Your task to perform on an android device: Search for razer blade on bestbuy, select the first entry, add it to the cart, then select checkout. Image 0: 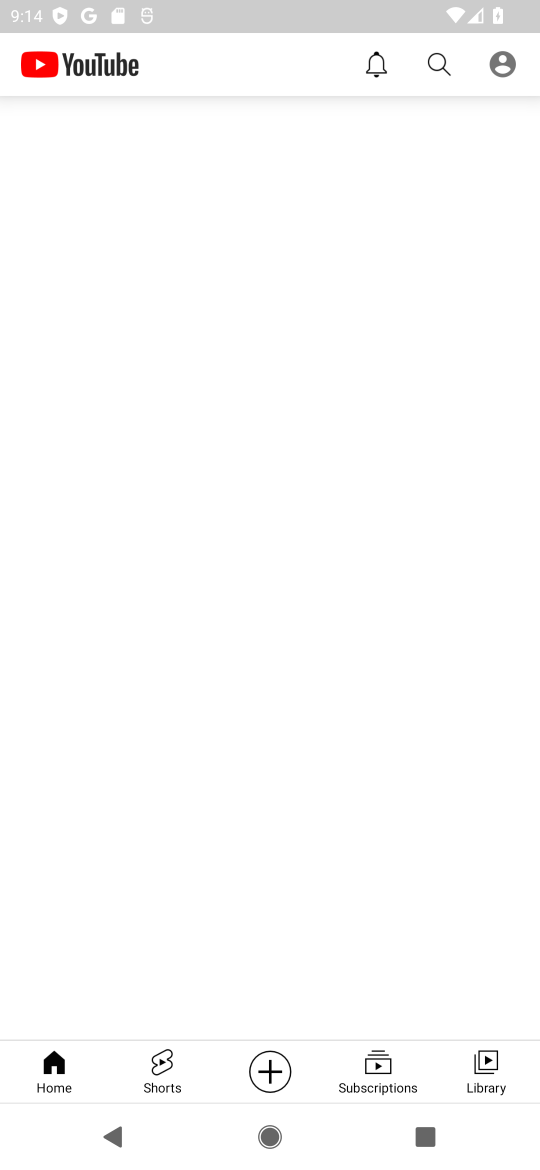
Step 0: press home button
Your task to perform on an android device: Search for razer blade on bestbuy, select the first entry, add it to the cart, then select checkout. Image 1: 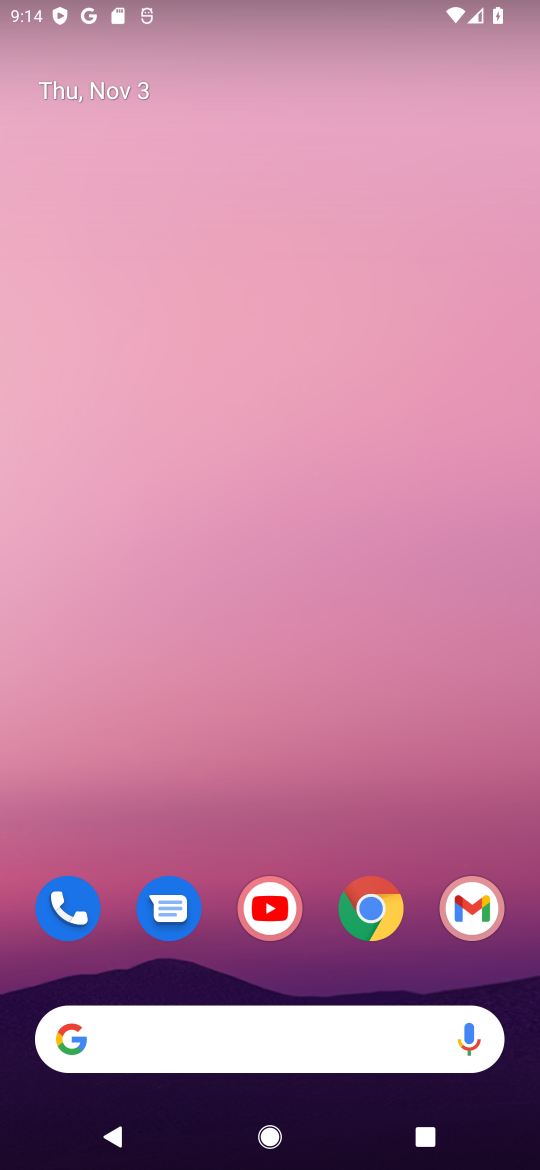
Step 1: click (378, 912)
Your task to perform on an android device: Search for razer blade on bestbuy, select the first entry, add it to the cart, then select checkout. Image 2: 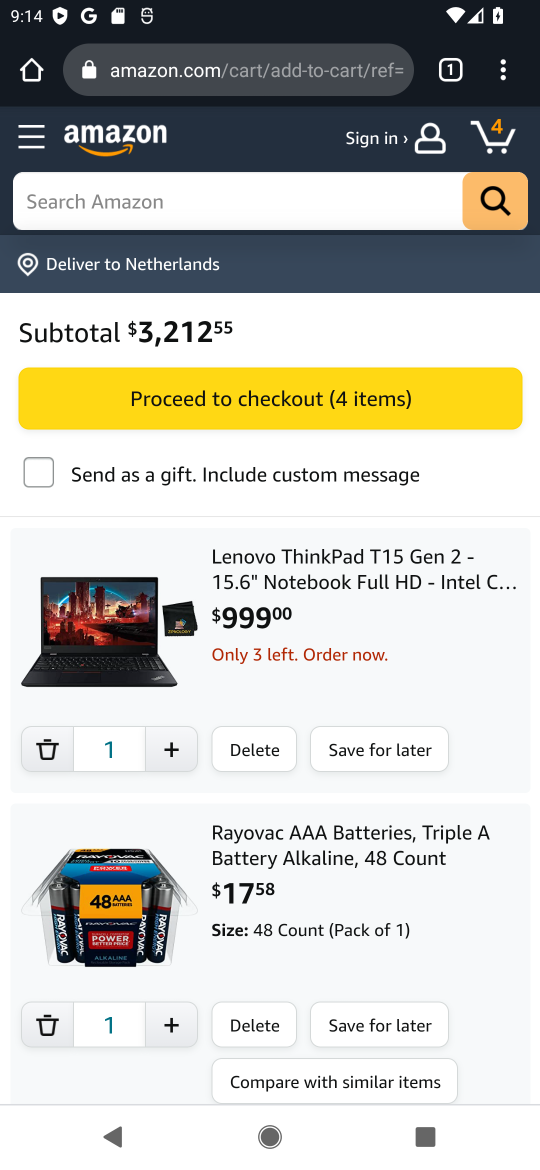
Step 2: click (281, 53)
Your task to perform on an android device: Search for razer blade on bestbuy, select the first entry, add it to the cart, then select checkout. Image 3: 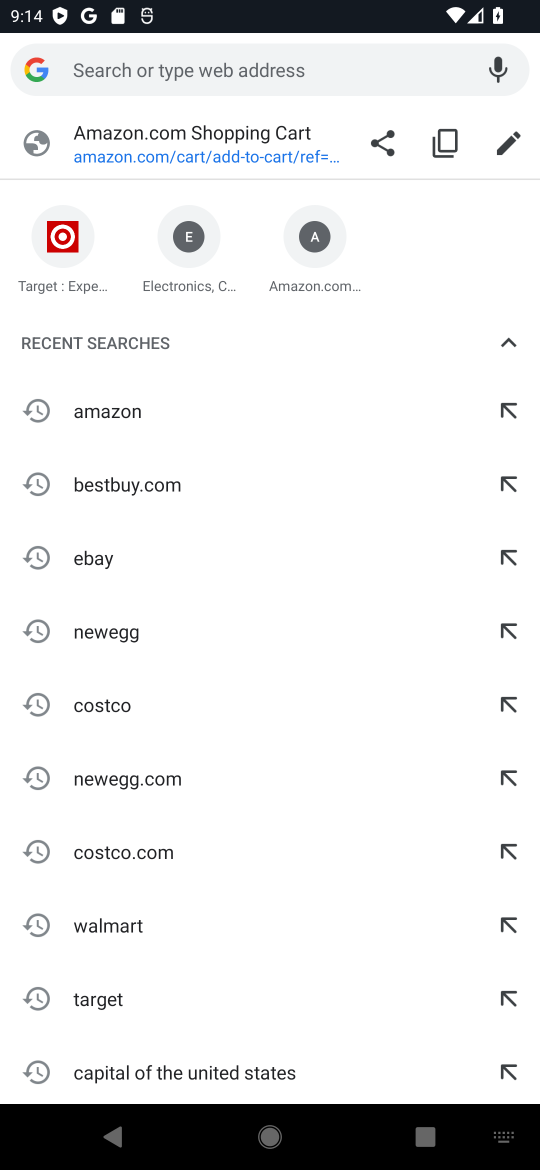
Step 3: click (148, 485)
Your task to perform on an android device: Search for razer blade on bestbuy, select the first entry, add it to the cart, then select checkout. Image 4: 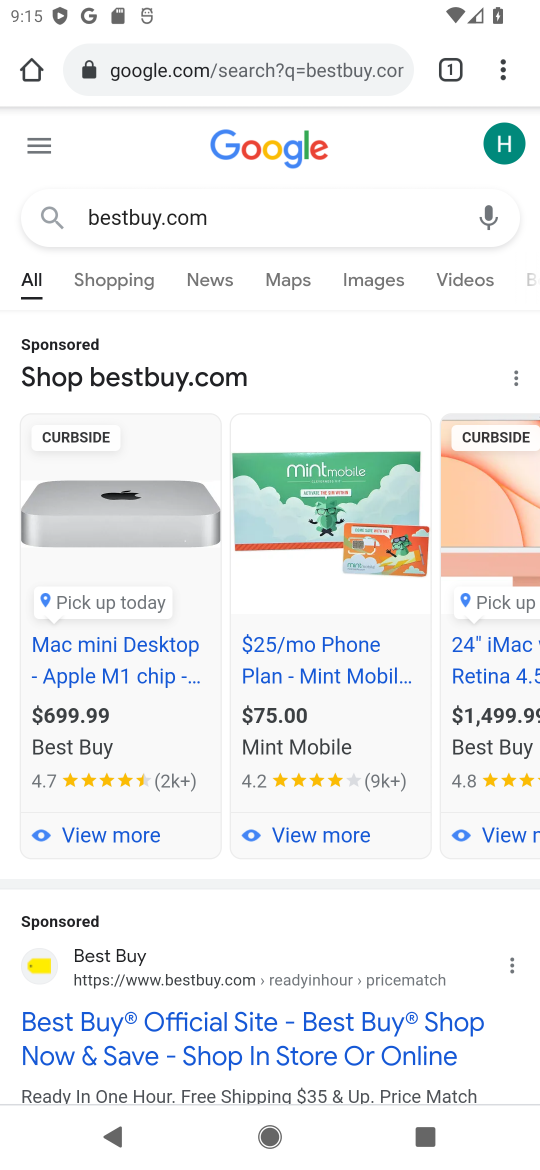
Step 4: click (135, 974)
Your task to perform on an android device: Search for razer blade on bestbuy, select the first entry, add it to the cart, then select checkout. Image 5: 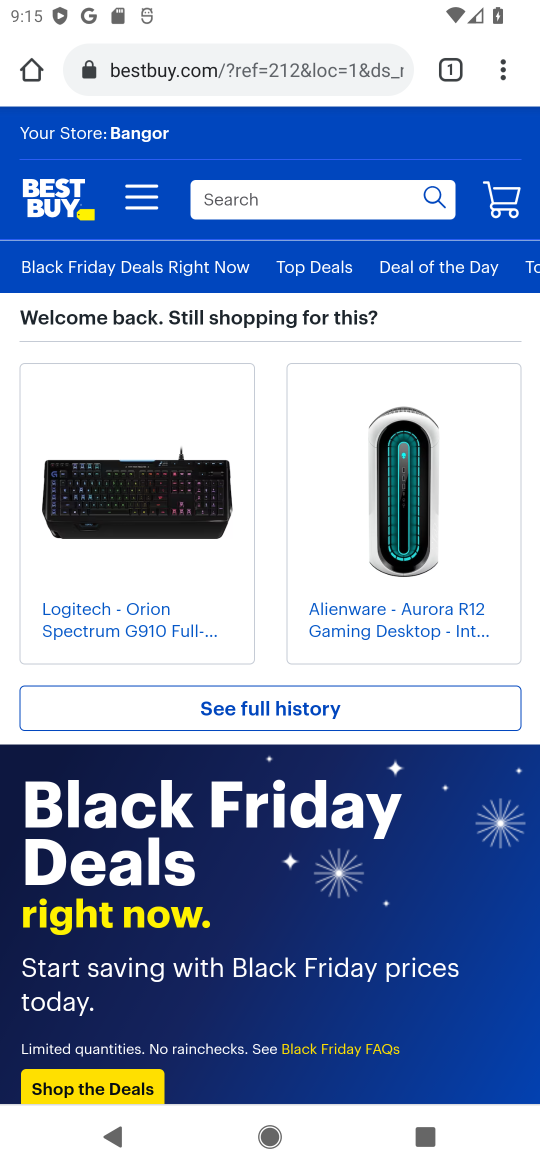
Step 5: click (324, 193)
Your task to perform on an android device: Search for razer blade on bestbuy, select the first entry, add it to the cart, then select checkout. Image 6: 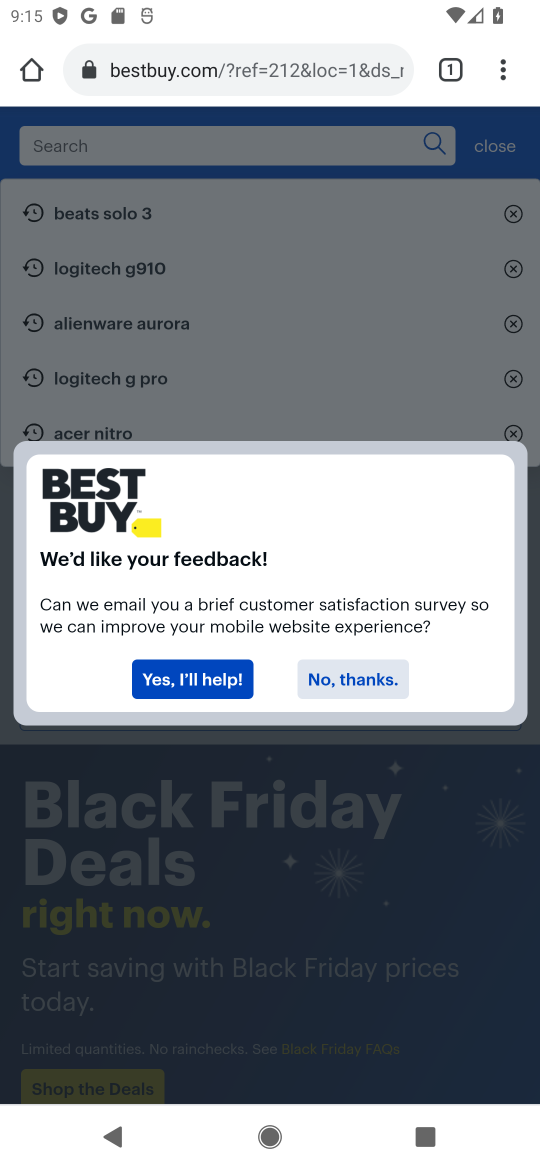
Step 6: type "razer blade"
Your task to perform on an android device: Search for razer blade on bestbuy, select the first entry, add it to the cart, then select checkout. Image 7: 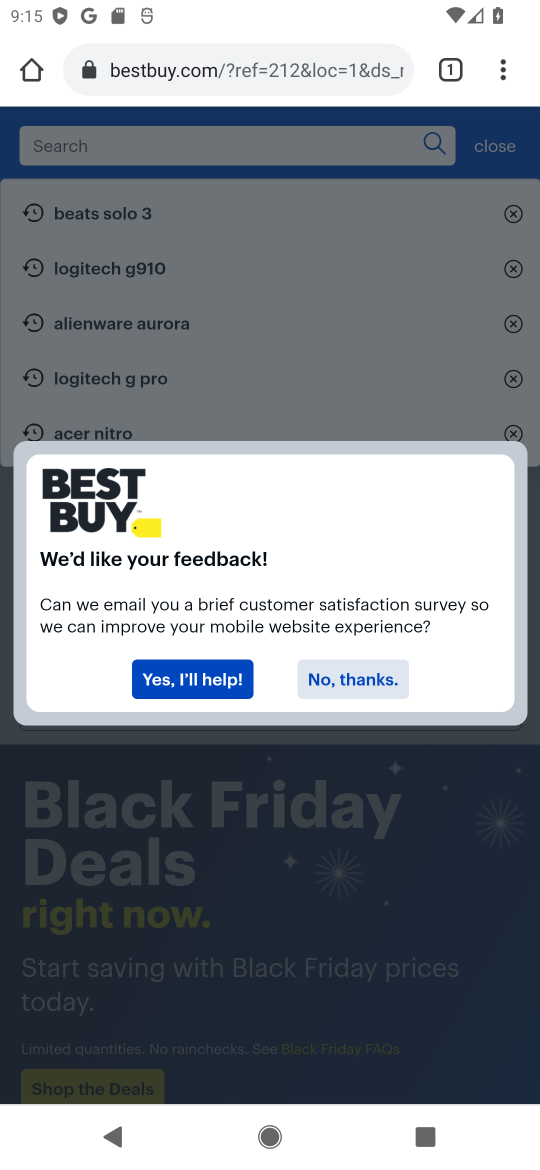
Step 7: press enter
Your task to perform on an android device: Search for razer blade on bestbuy, select the first entry, add it to the cart, then select checkout. Image 8: 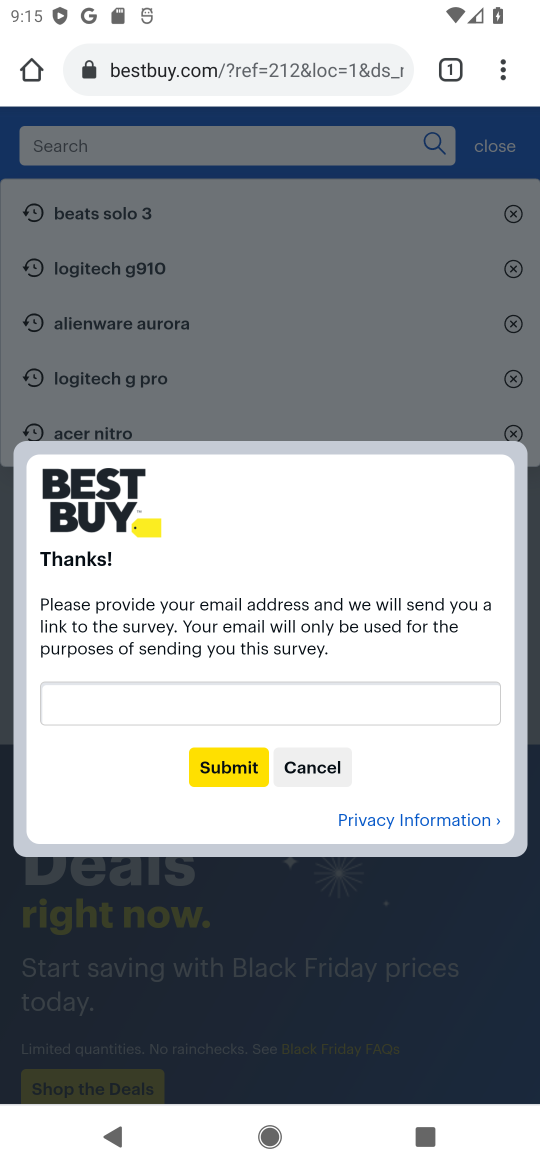
Step 8: click (315, 769)
Your task to perform on an android device: Search for razer blade on bestbuy, select the first entry, add it to the cart, then select checkout. Image 9: 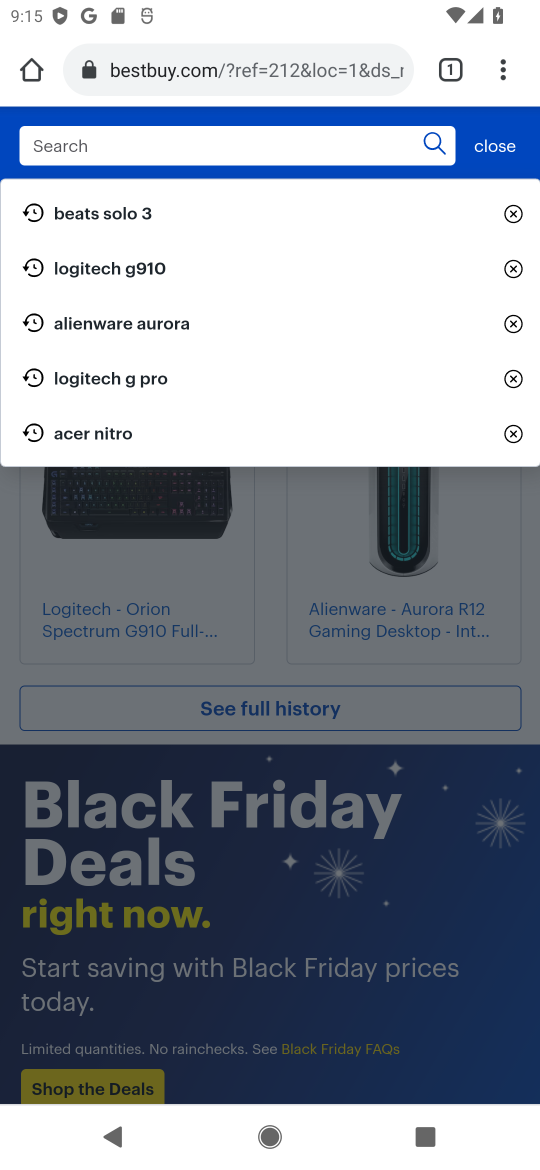
Step 9: click (232, 142)
Your task to perform on an android device: Search for razer blade on bestbuy, select the first entry, add it to the cart, then select checkout. Image 10: 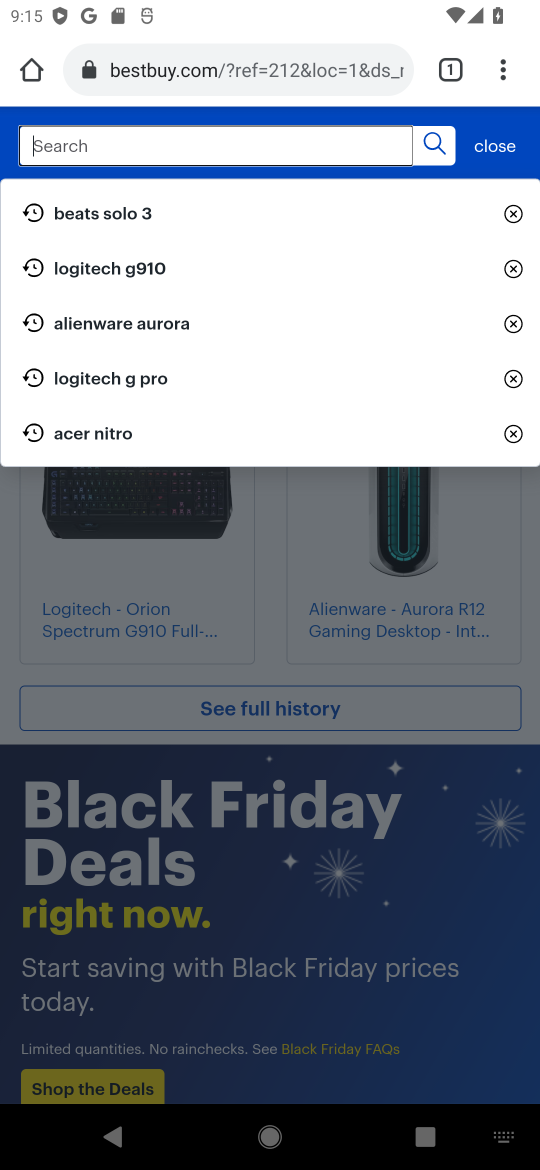
Step 10: type "razer blade"
Your task to perform on an android device: Search for razer blade on bestbuy, select the first entry, add it to the cart, then select checkout. Image 11: 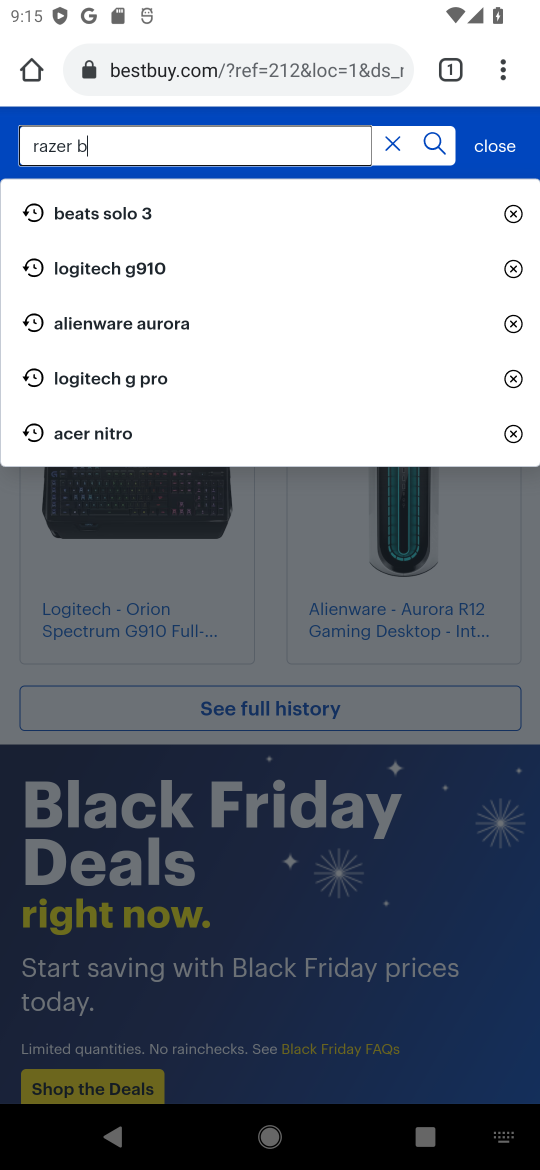
Step 11: press enter
Your task to perform on an android device: Search for razer blade on bestbuy, select the first entry, add it to the cart, then select checkout. Image 12: 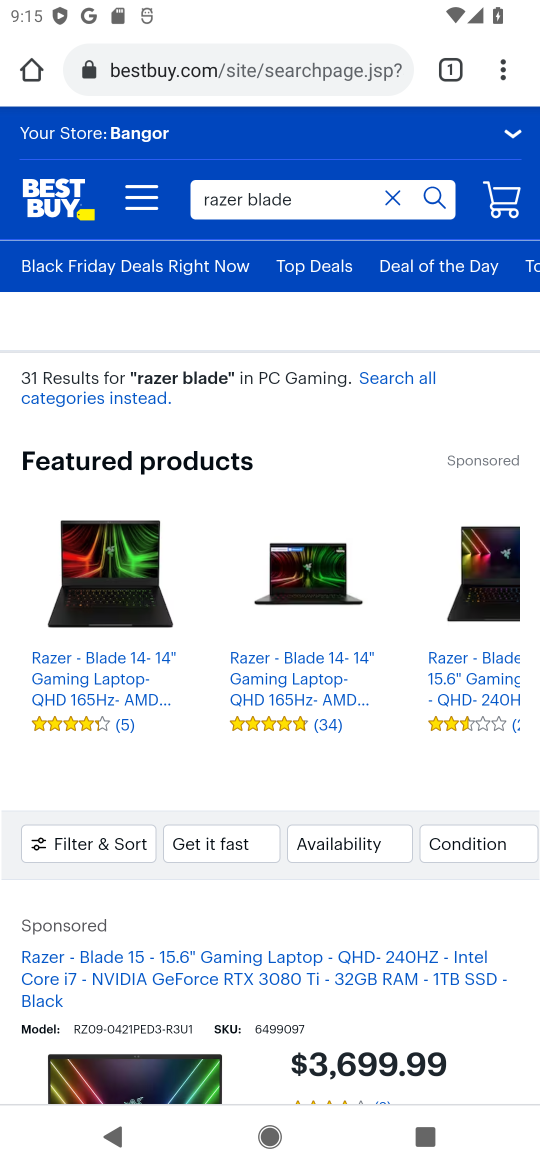
Step 12: click (112, 558)
Your task to perform on an android device: Search for razer blade on bestbuy, select the first entry, add it to the cart, then select checkout. Image 13: 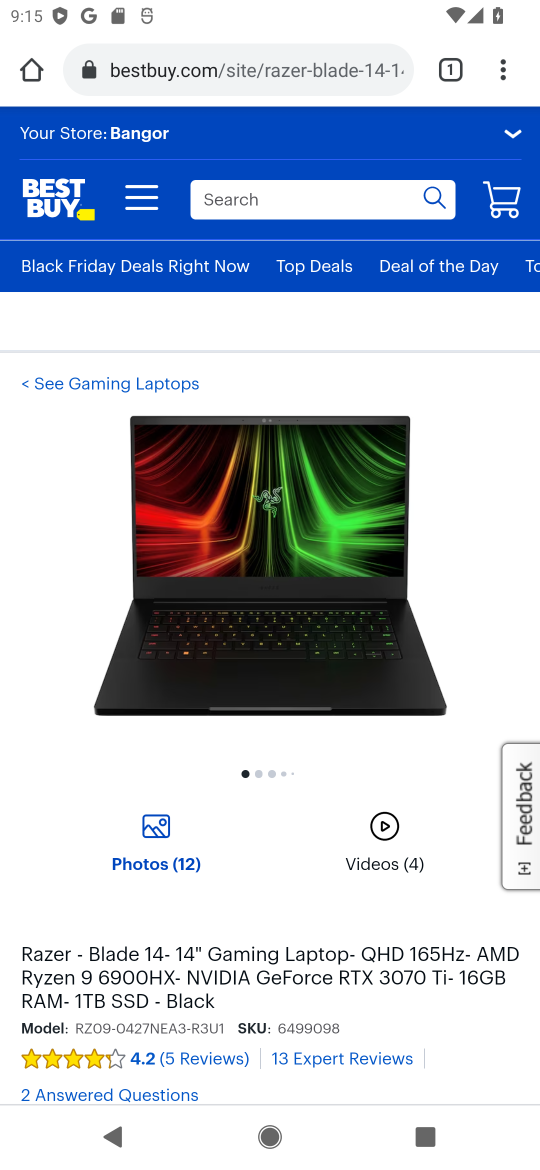
Step 13: drag from (276, 826) to (267, 363)
Your task to perform on an android device: Search for razer blade on bestbuy, select the first entry, add it to the cart, then select checkout. Image 14: 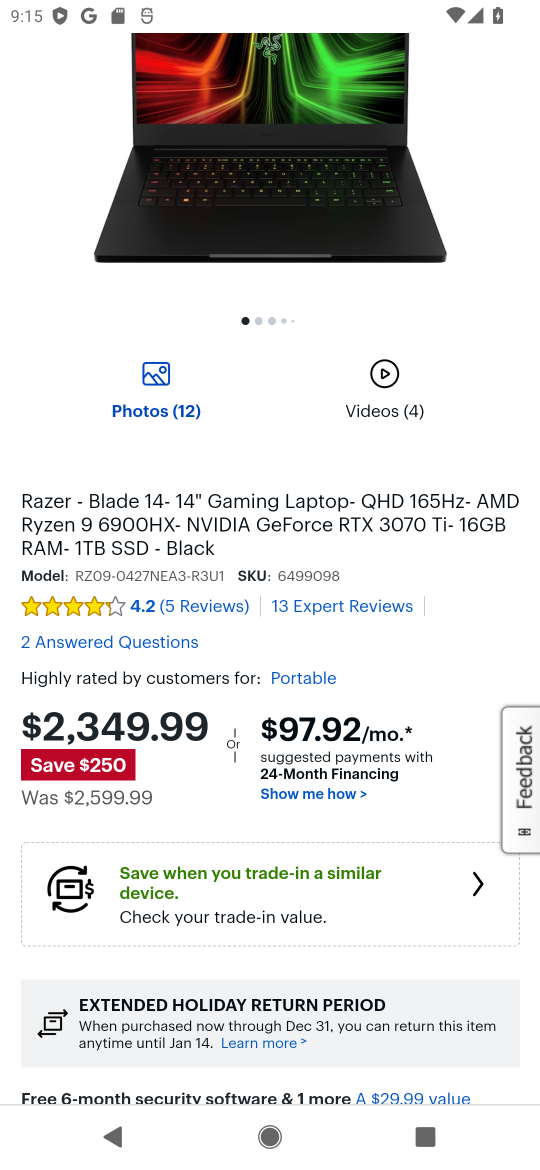
Step 14: drag from (339, 848) to (301, 332)
Your task to perform on an android device: Search for razer blade on bestbuy, select the first entry, add it to the cart, then select checkout. Image 15: 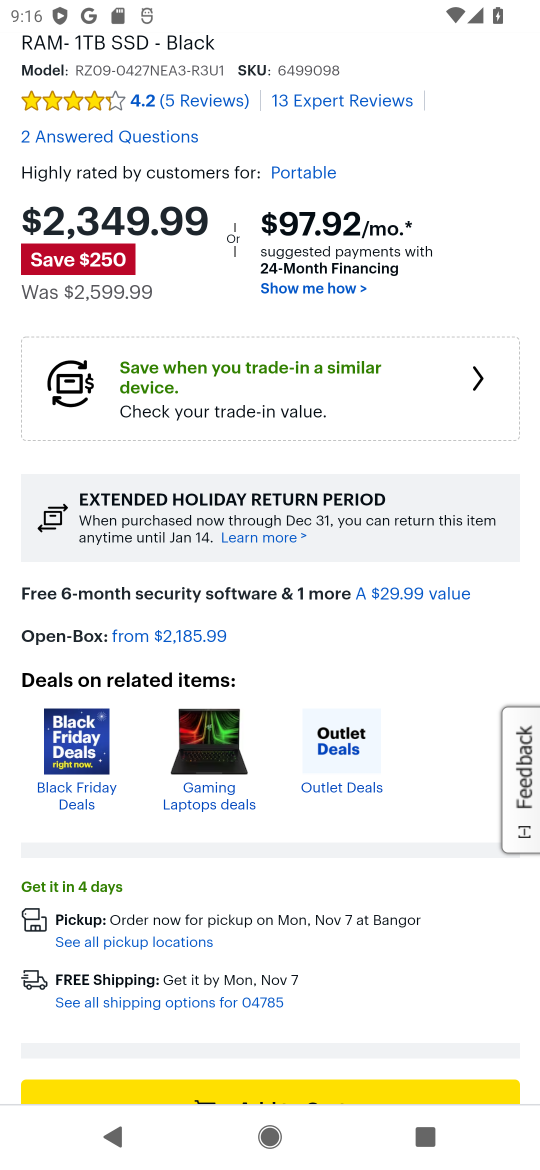
Step 15: drag from (327, 928) to (376, 570)
Your task to perform on an android device: Search for razer blade on bestbuy, select the first entry, add it to the cart, then select checkout. Image 16: 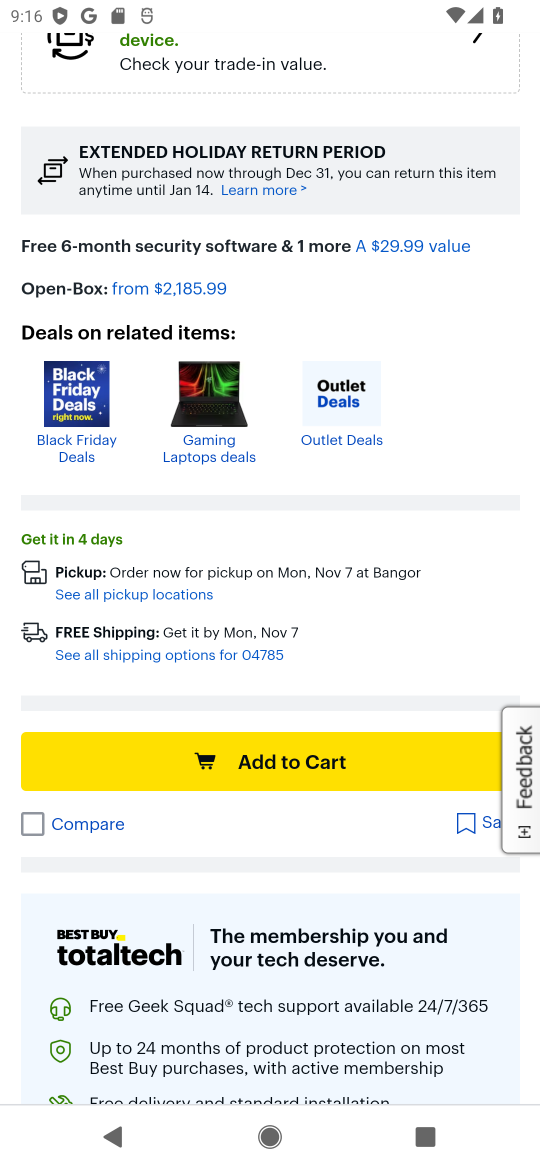
Step 16: click (334, 767)
Your task to perform on an android device: Search for razer blade on bestbuy, select the first entry, add it to the cart, then select checkout. Image 17: 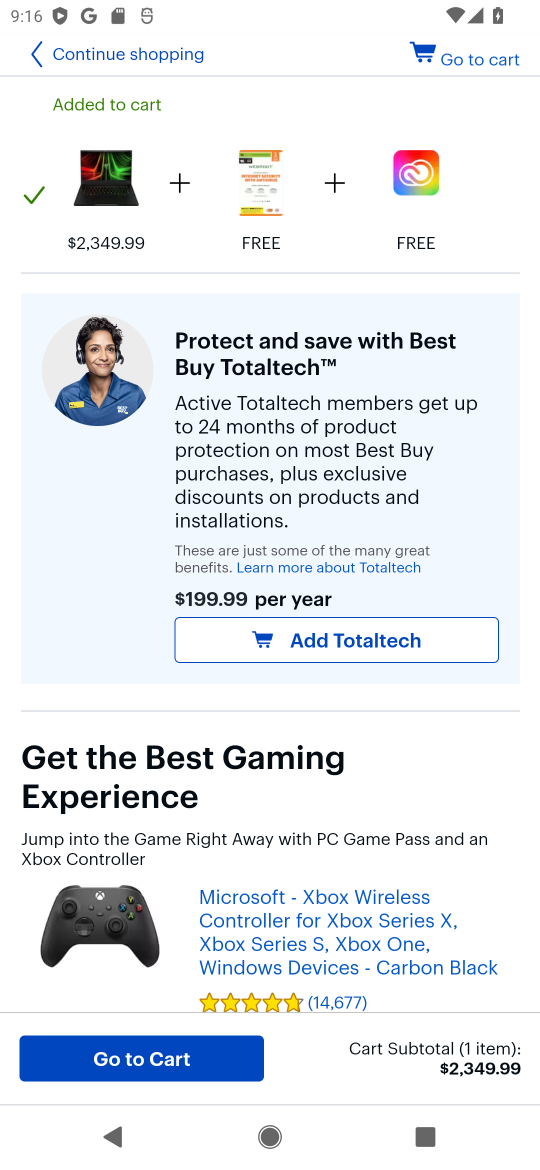
Step 17: click (147, 1050)
Your task to perform on an android device: Search for razer blade on bestbuy, select the first entry, add it to the cart, then select checkout. Image 18: 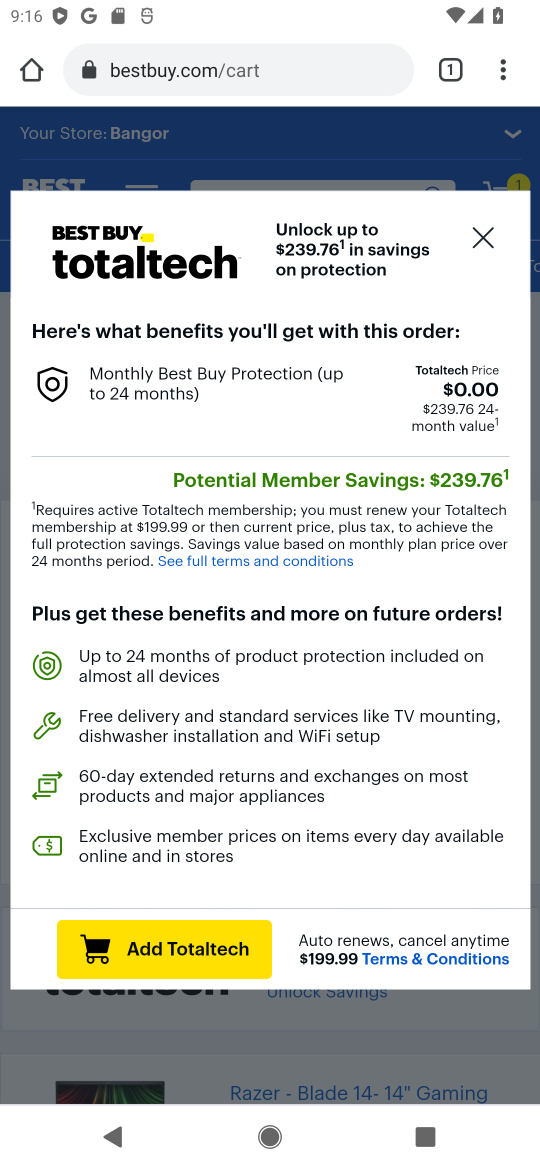
Step 18: click (485, 231)
Your task to perform on an android device: Search for razer blade on bestbuy, select the first entry, add it to the cart, then select checkout. Image 19: 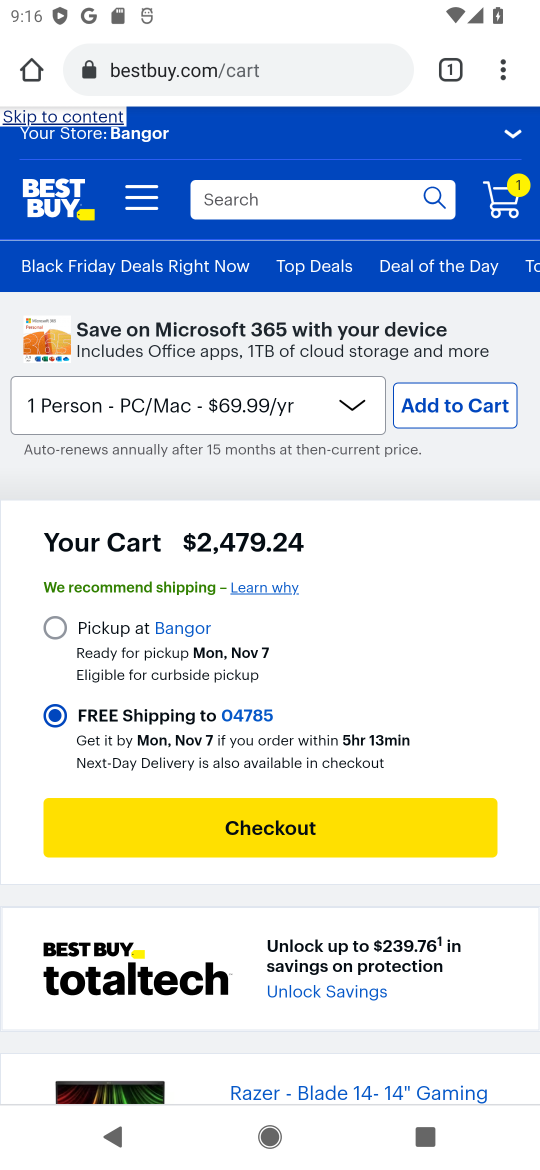
Step 19: click (349, 834)
Your task to perform on an android device: Search for razer blade on bestbuy, select the first entry, add it to the cart, then select checkout. Image 20: 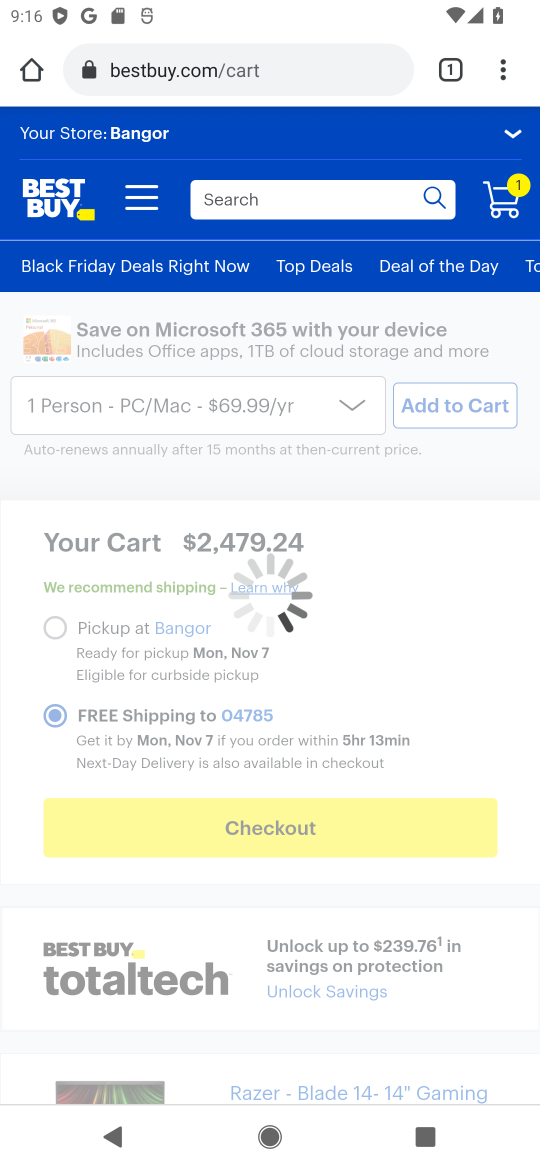
Step 20: task complete